Your task to perform on an android device: Search for Italian restaurants on Maps Image 0: 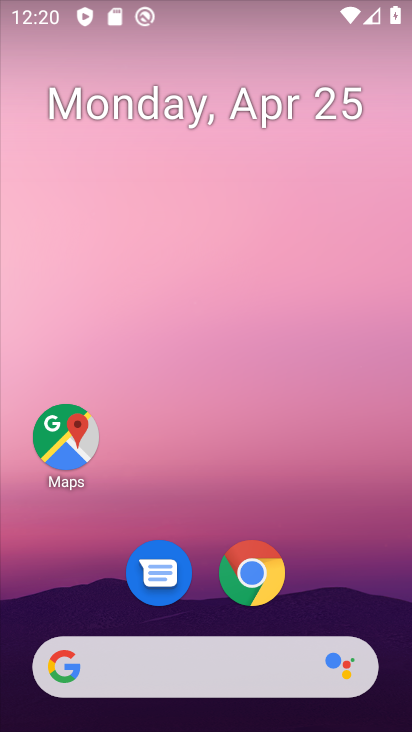
Step 0: click (43, 435)
Your task to perform on an android device: Search for Italian restaurants on Maps Image 1: 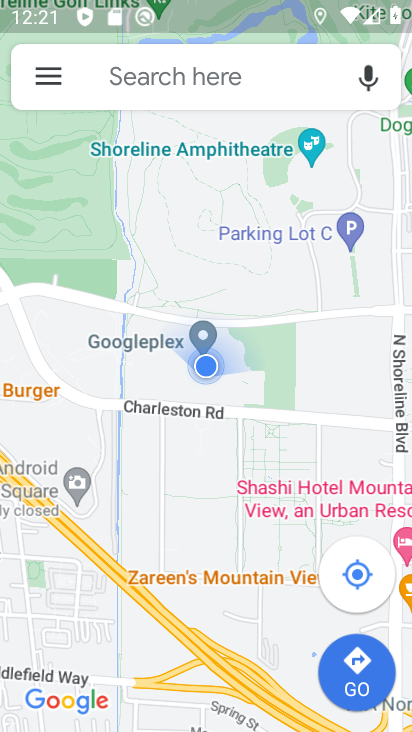
Step 1: click (67, 85)
Your task to perform on an android device: Search for Italian restaurants on Maps Image 2: 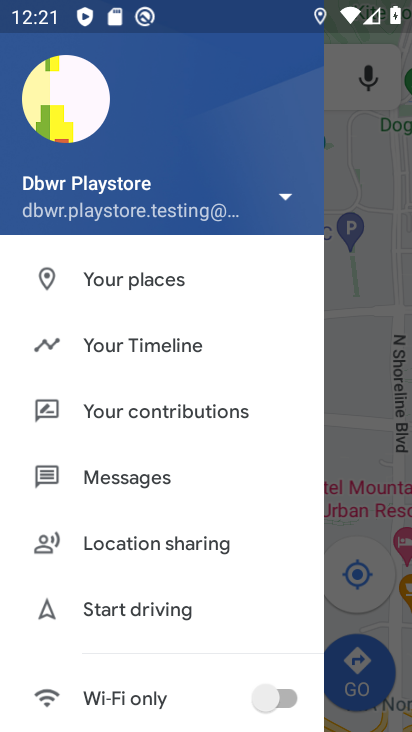
Step 2: click (378, 243)
Your task to perform on an android device: Search for Italian restaurants on Maps Image 3: 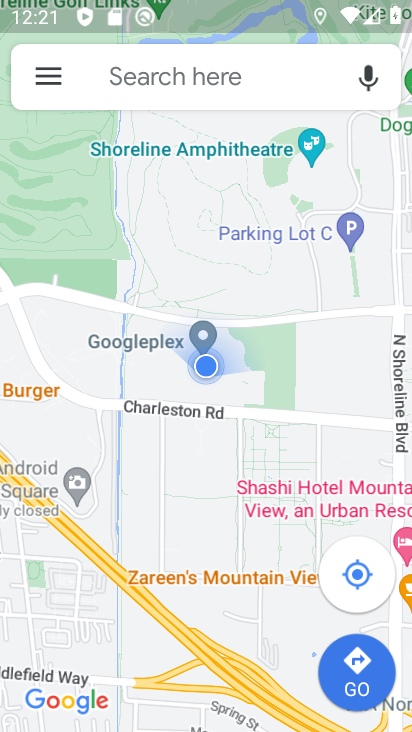
Step 3: click (214, 91)
Your task to perform on an android device: Search for Italian restaurants on Maps Image 4: 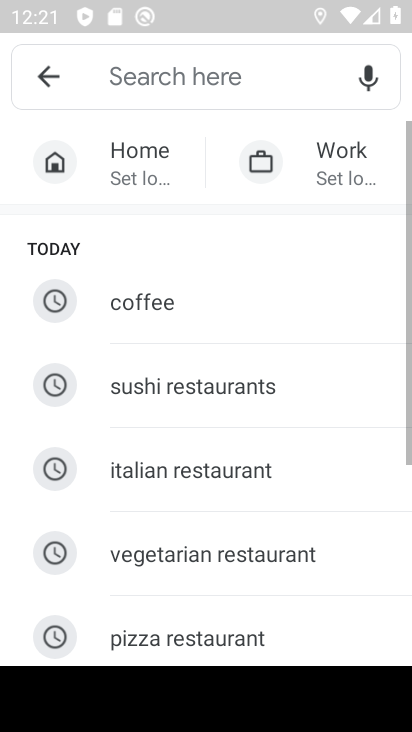
Step 4: click (222, 469)
Your task to perform on an android device: Search for Italian restaurants on Maps Image 5: 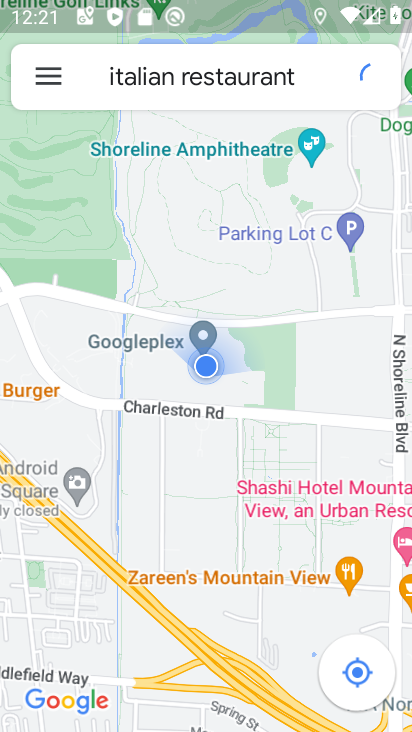
Step 5: task complete